Your task to perform on an android device: check the backup settings in the google photos Image 0: 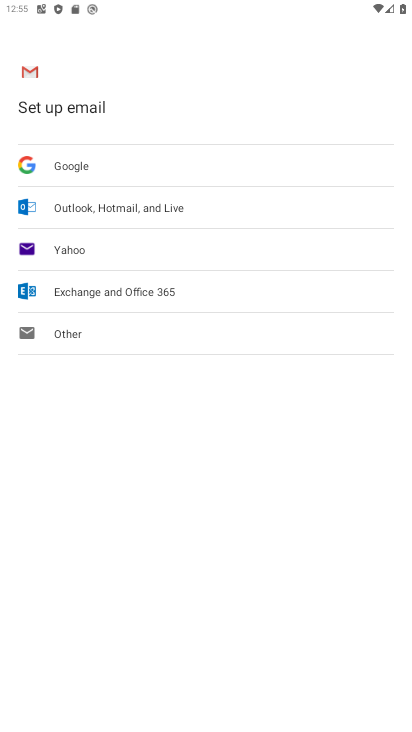
Step 0: press home button
Your task to perform on an android device: check the backup settings in the google photos Image 1: 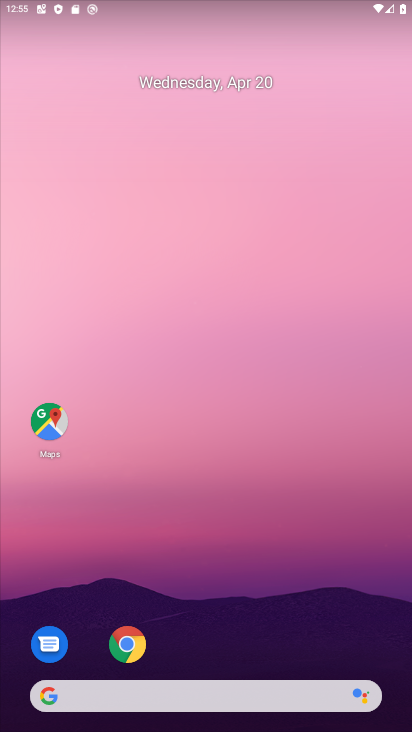
Step 1: drag from (198, 665) to (222, 5)
Your task to perform on an android device: check the backup settings in the google photos Image 2: 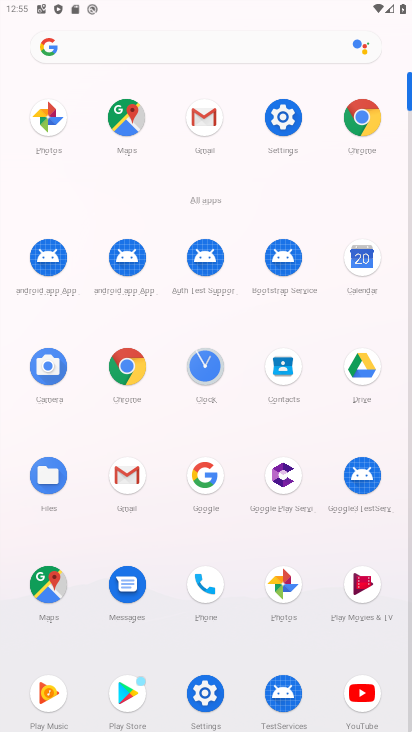
Step 2: click (284, 599)
Your task to perform on an android device: check the backup settings in the google photos Image 3: 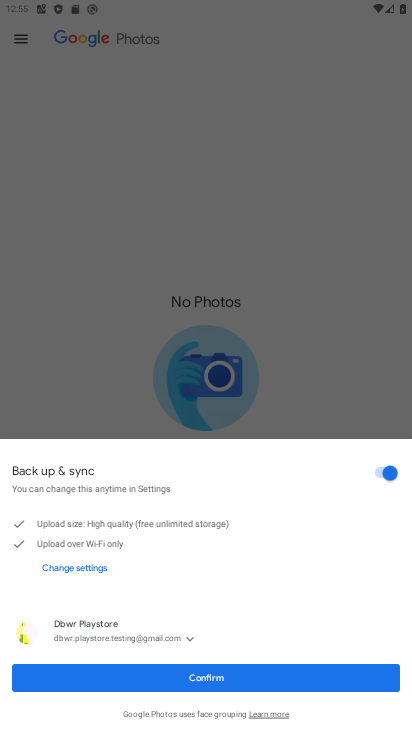
Step 3: click (234, 676)
Your task to perform on an android device: check the backup settings in the google photos Image 4: 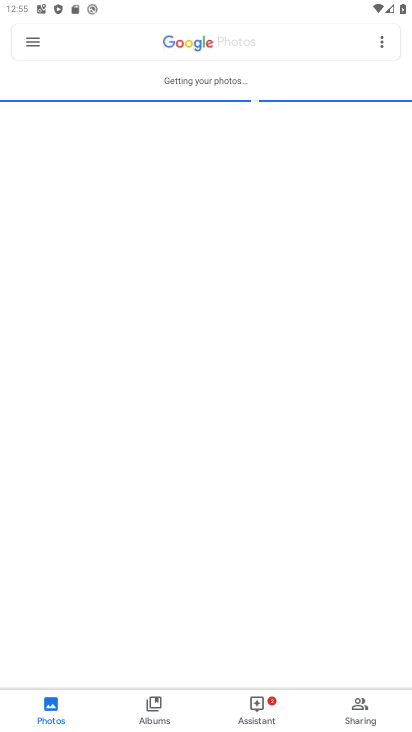
Step 4: click (31, 43)
Your task to perform on an android device: check the backup settings in the google photos Image 5: 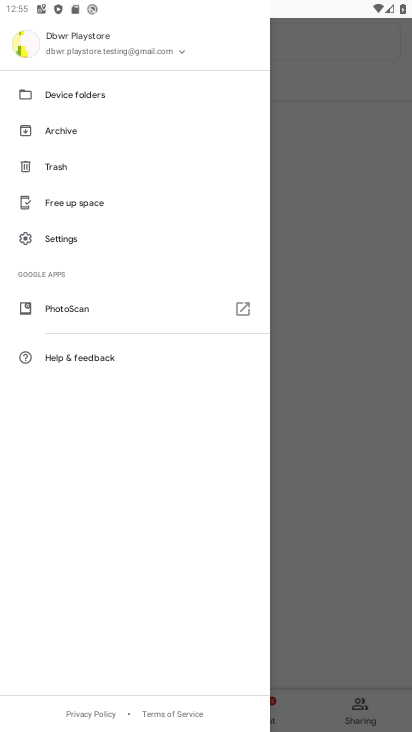
Step 5: click (72, 243)
Your task to perform on an android device: check the backup settings in the google photos Image 6: 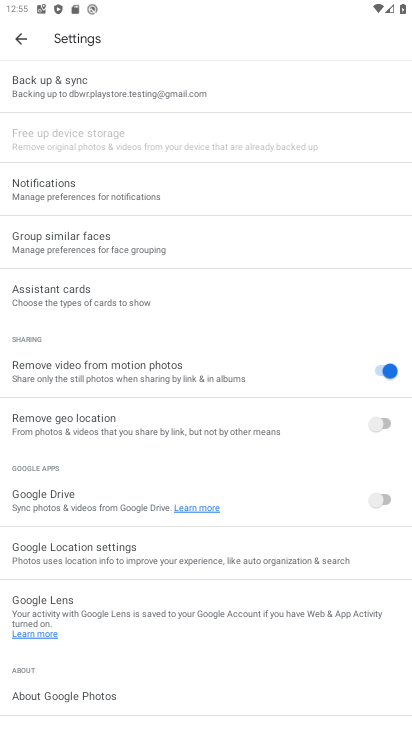
Step 6: click (129, 90)
Your task to perform on an android device: check the backup settings in the google photos Image 7: 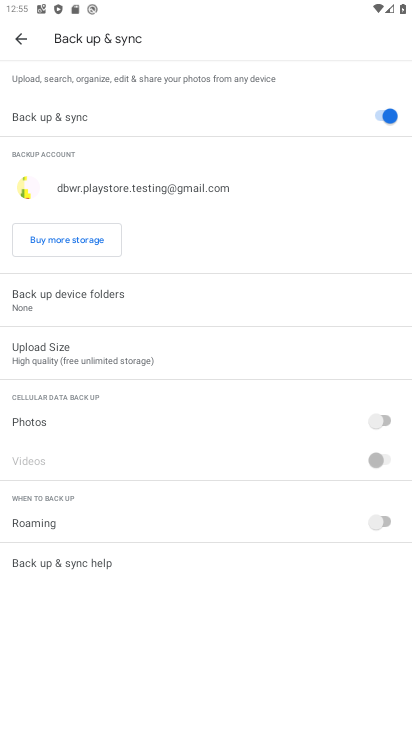
Step 7: task complete